Your task to perform on an android device: turn off improve location accuracy Image 0: 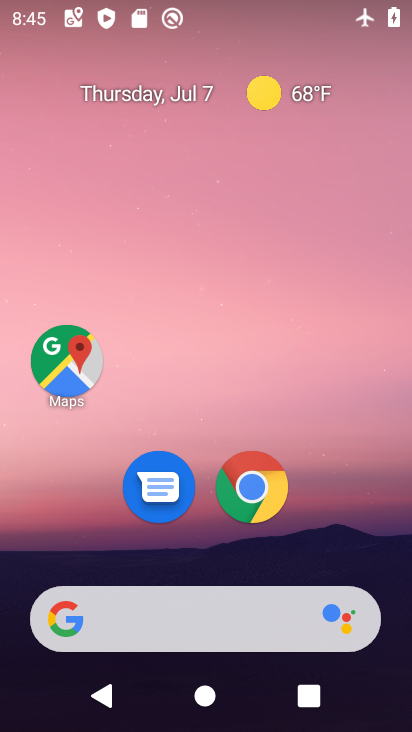
Step 0: drag from (210, 565) to (168, 91)
Your task to perform on an android device: turn off improve location accuracy Image 1: 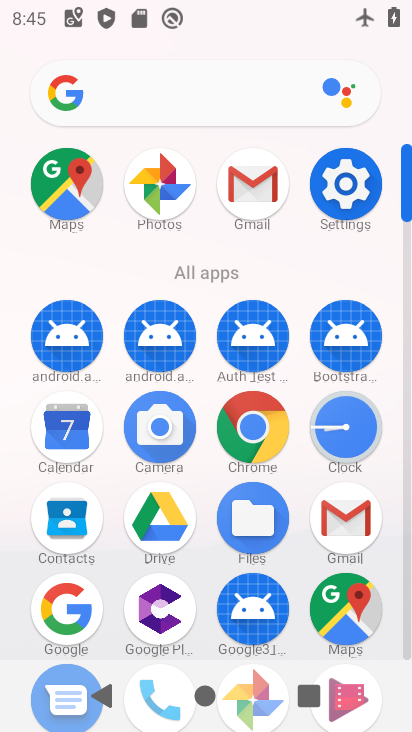
Step 1: click (331, 185)
Your task to perform on an android device: turn off improve location accuracy Image 2: 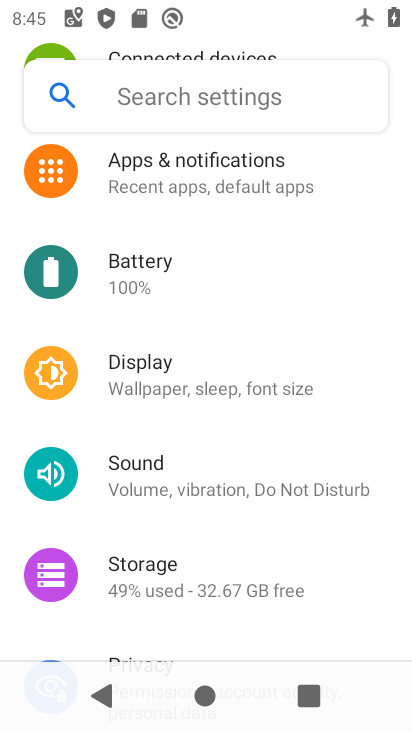
Step 2: drag from (289, 560) to (244, 108)
Your task to perform on an android device: turn off improve location accuracy Image 3: 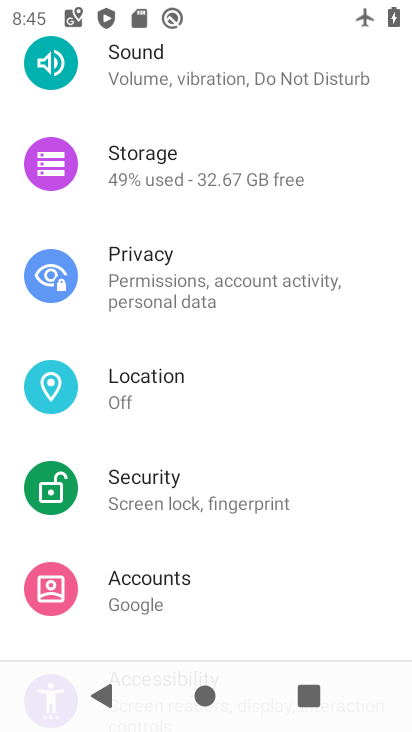
Step 3: click (173, 387)
Your task to perform on an android device: turn off improve location accuracy Image 4: 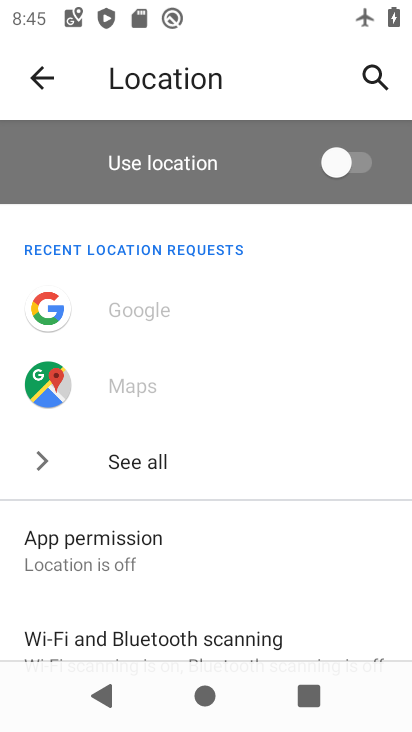
Step 4: drag from (159, 555) to (159, 205)
Your task to perform on an android device: turn off improve location accuracy Image 5: 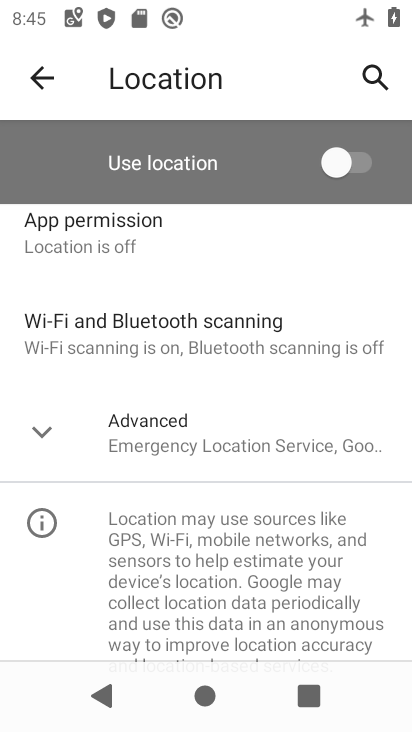
Step 5: click (146, 436)
Your task to perform on an android device: turn off improve location accuracy Image 6: 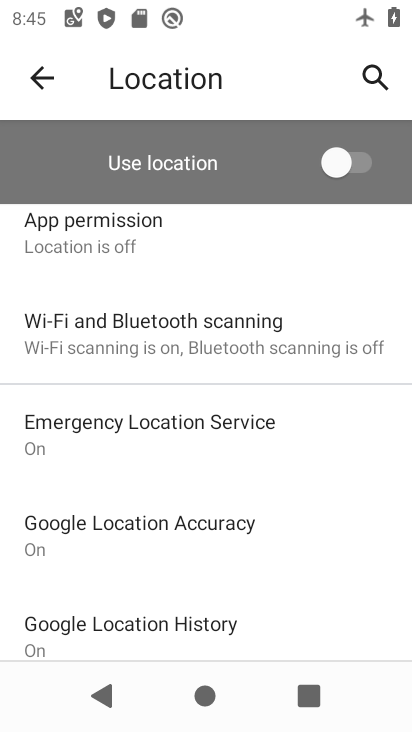
Step 6: click (176, 515)
Your task to perform on an android device: turn off improve location accuracy Image 7: 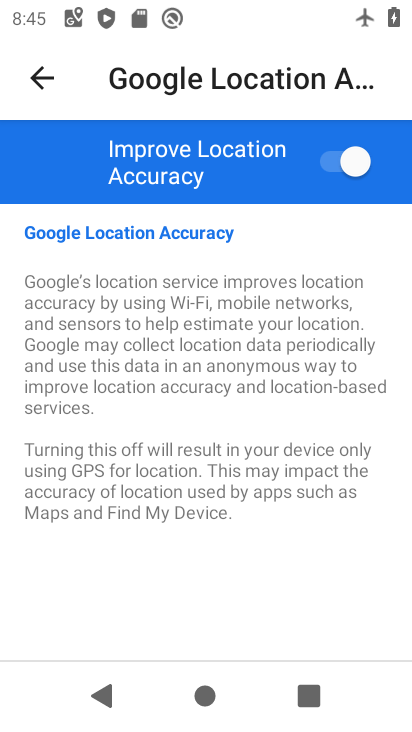
Step 7: click (350, 160)
Your task to perform on an android device: turn off improve location accuracy Image 8: 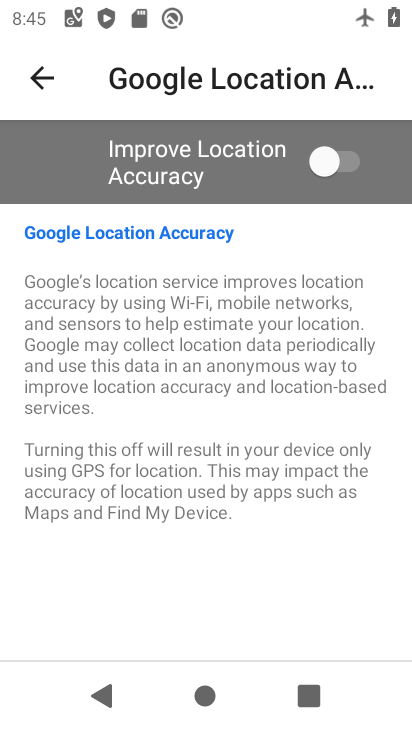
Step 8: task complete